Your task to perform on an android device: Open Wikipedia Image 0: 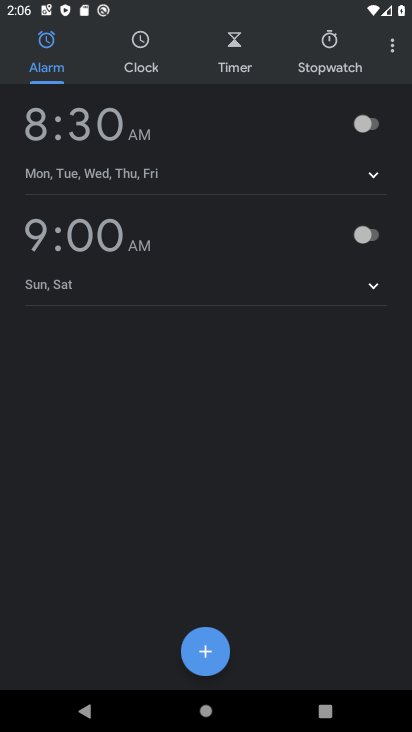
Step 0: press home button
Your task to perform on an android device: Open Wikipedia Image 1: 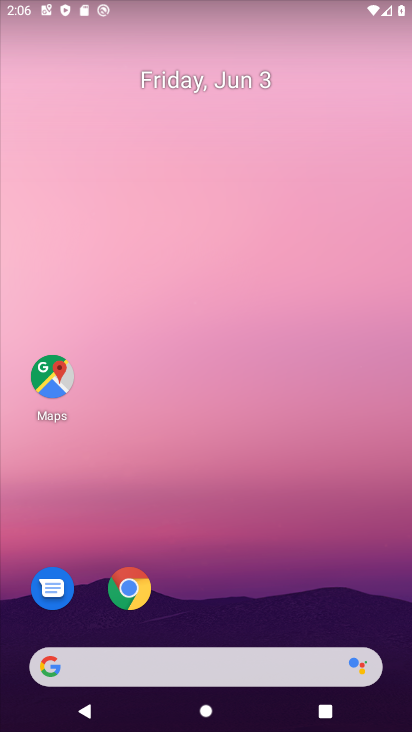
Step 1: drag from (223, 635) to (203, 172)
Your task to perform on an android device: Open Wikipedia Image 2: 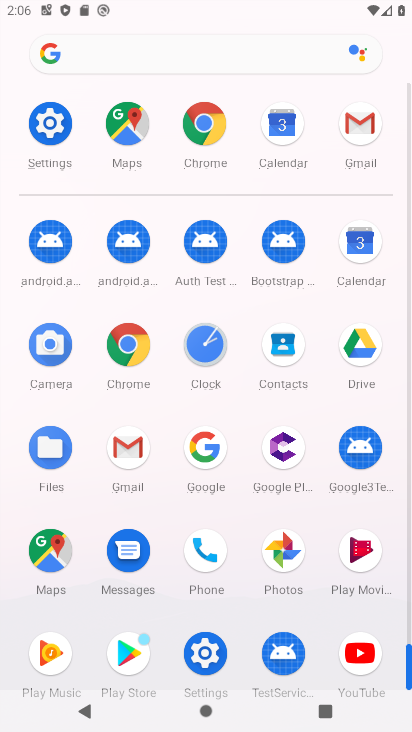
Step 2: click (120, 366)
Your task to perform on an android device: Open Wikipedia Image 3: 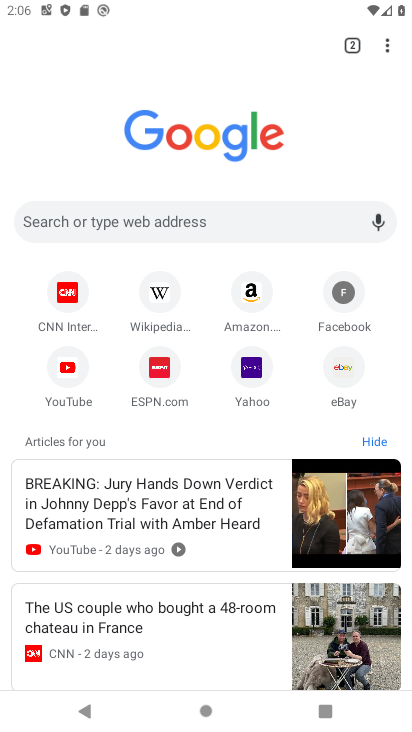
Step 3: click (392, 51)
Your task to perform on an android device: Open Wikipedia Image 4: 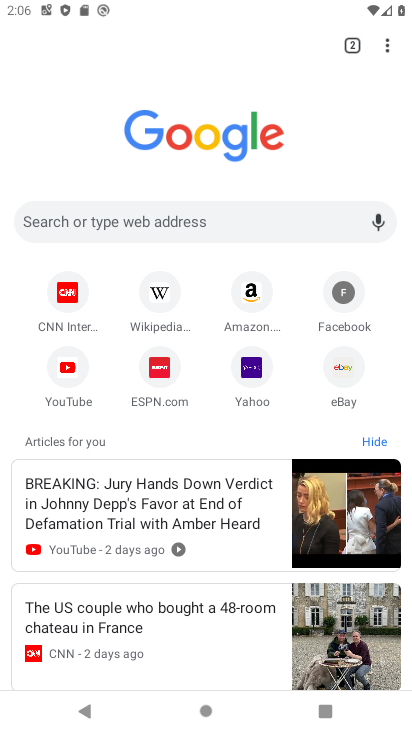
Step 4: click (166, 310)
Your task to perform on an android device: Open Wikipedia Image 5: 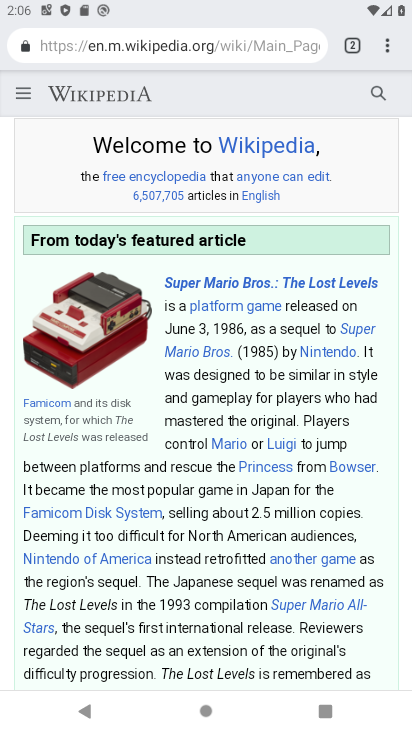
Step 5: task complete